Your task to perform on an android device: turn on location history Image 0: 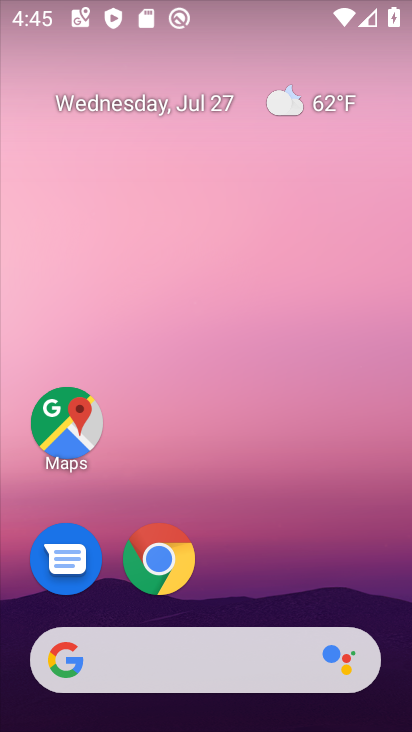
Step 0: drag from (253, 589) to (340, 11)
Your task to perform on an android device: turn on location history Image 1: 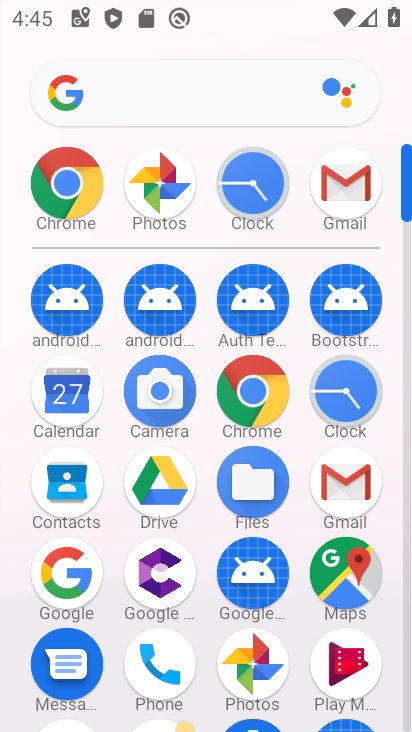
Step 1: drag from (235, 648) to (309, 72)
Your task to perform on an android device: turn on location history Image 2: 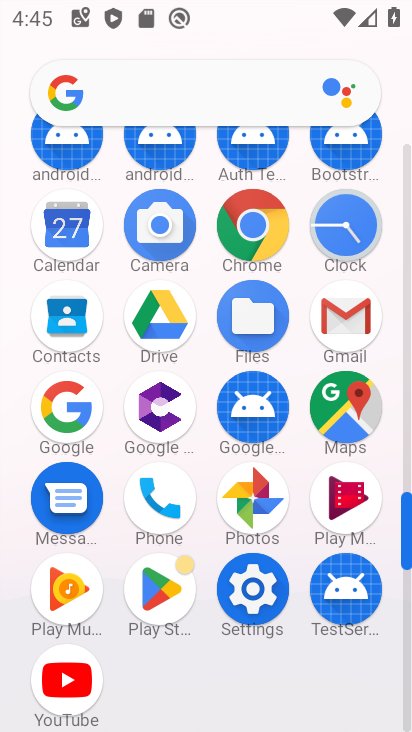
Step 2: click (266, 587)
Your task to perform on an android device: turn on location history Image 3: 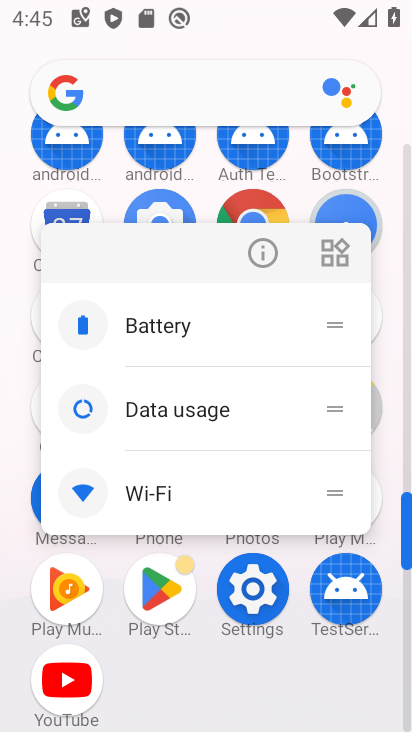
Step 3: click (266, 568)
Your task to perform on an android device: turn on location history Image 4: 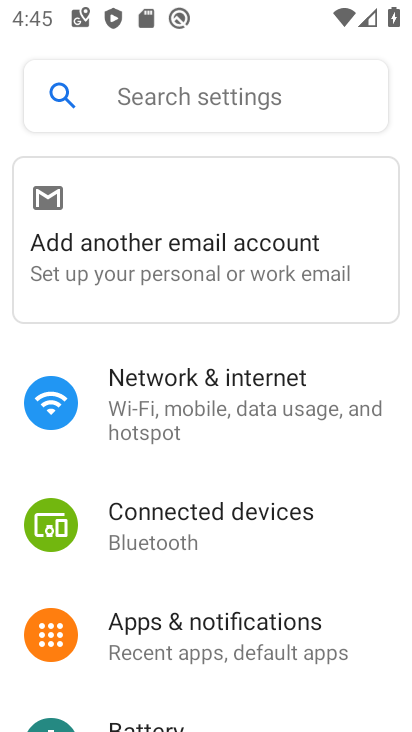
Step 4: drag from (243, 624) to (243, 103)
Your task to perform on an android device: turn on location history Image 5: 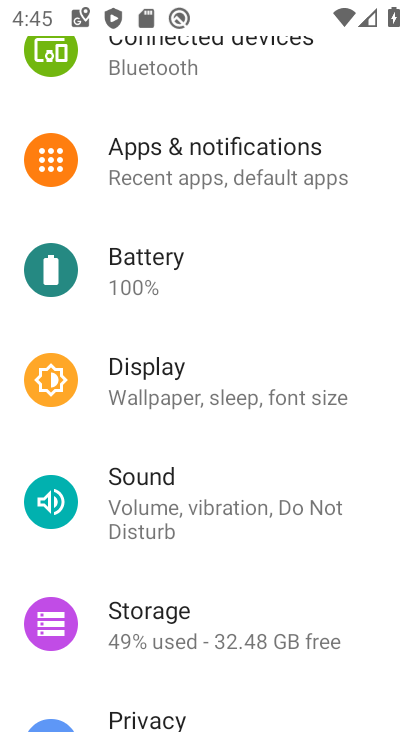
Step 5: drag from (156, 690) to (271, 43)
Your task to perform on an android device: turn on location history Image 6: 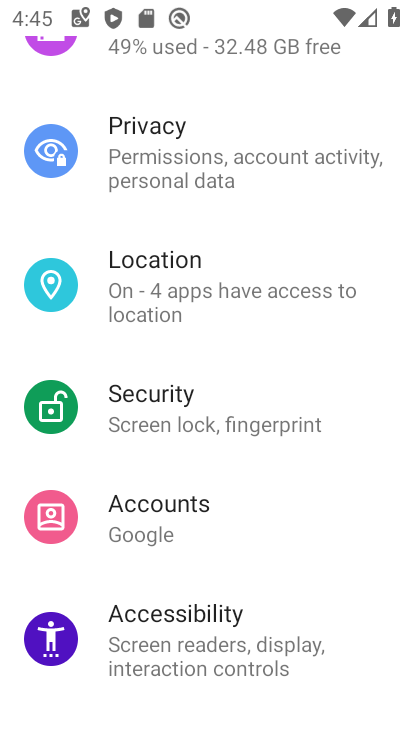
Step 6: click (181, 281)
Your task to perform on an android device: turn on location history Image 7: 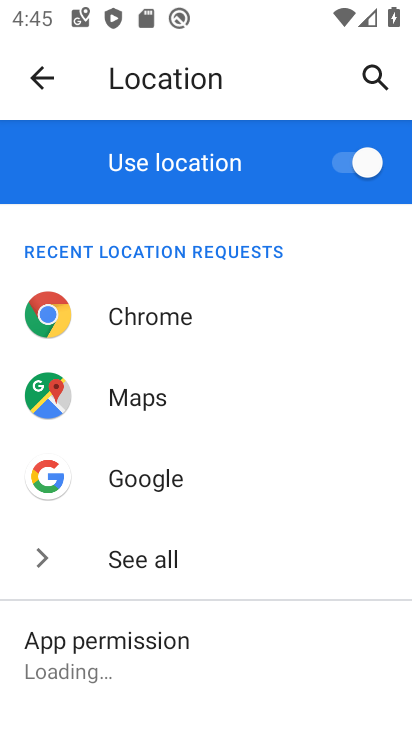
Step 7: drag from (172, 687) to (261, 127)
Your task to perform on an android device: turn on location history Image 8: 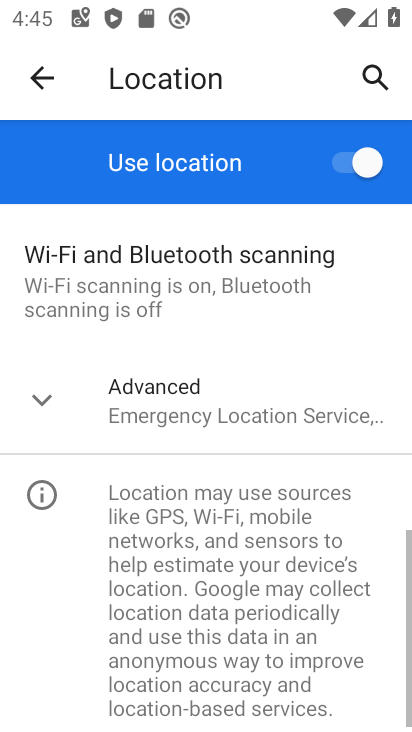
Step 8: click (136, 400)
Your task to perform on an android device: turn on location history Image 9: 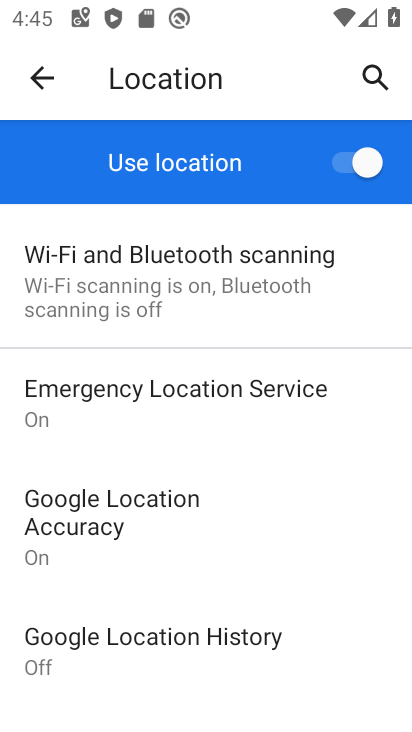
Step 9: click (158, 647)
Your task to perform on an android device: turn on location history Image 10: 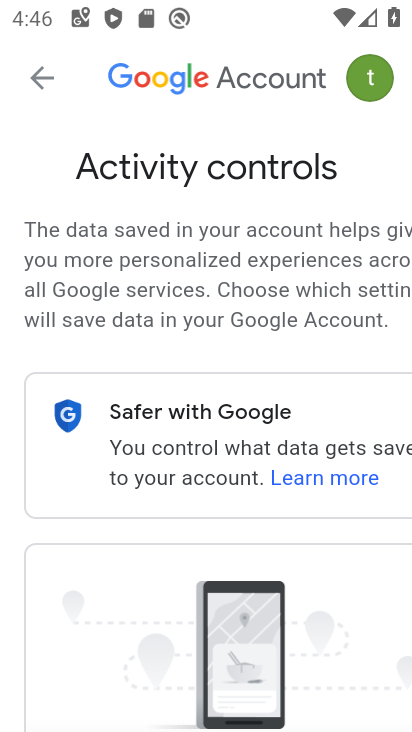
Step 10: task complete